Your task to perform on an android device: Go to network settings Image 0: 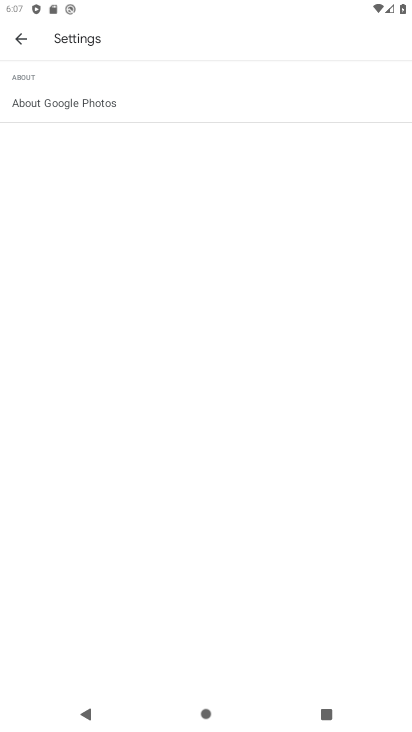
Step 0: press home button
Your task to perform on an android device: Go to network settings Image 1: 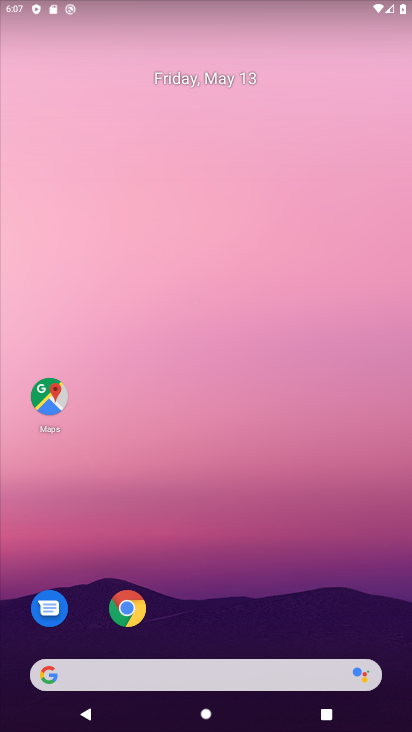
Step 1: drag from (203, 593) to (276, 192)
Your task to perform on an android device: Go to network settings Image 2: 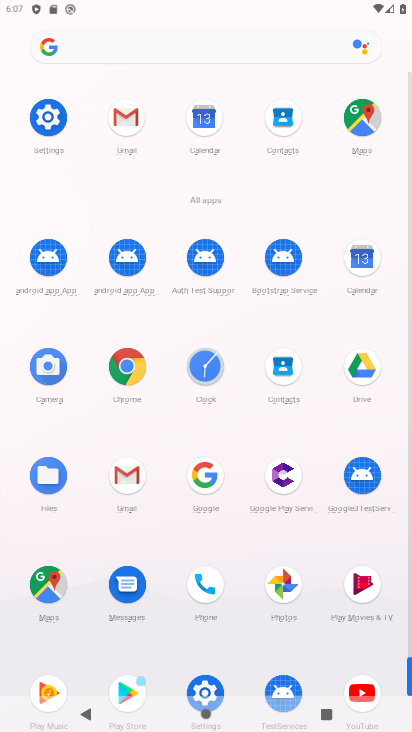
Step 2: click (238, 323)
Your task to perform on an android device: Go to network settings Image 3: 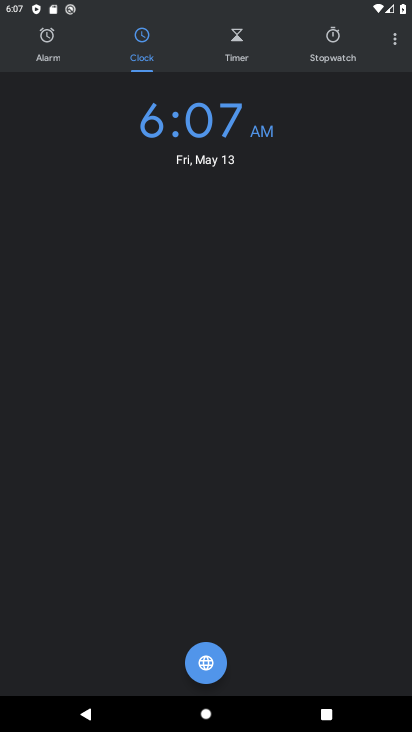
Step 3: press home button
Your task to perform on an android device: Go to network settings Image 4: 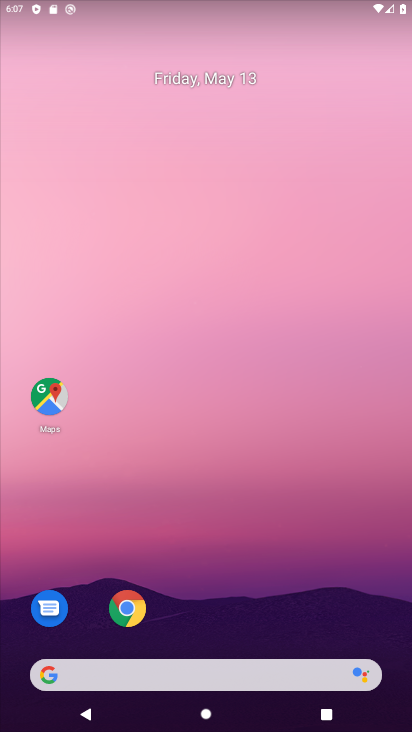
Step 4: drag from (226, 601) to (317, 5)
Your task to perform on an android device: Go to network settings Image 5: 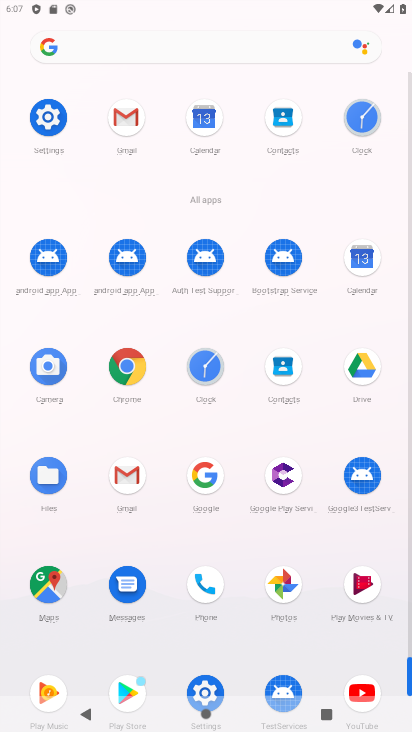
Step 5: click (53, 115)
Your task to perform on an android device: Go to network settings Image 6: 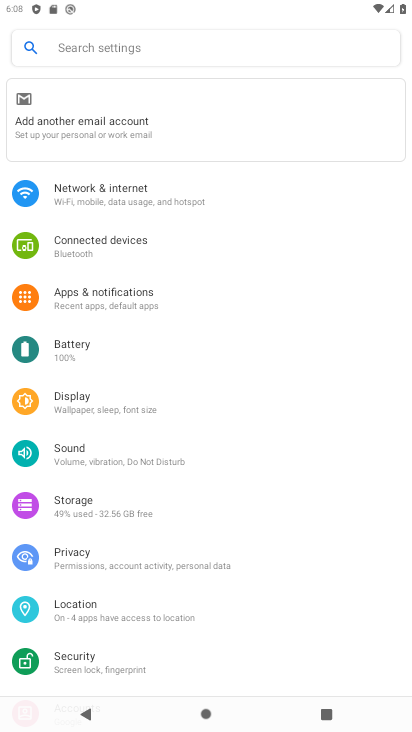
Step 6: click (92, 203)
Your task to perform on an android device: Go to network settings Image 7: 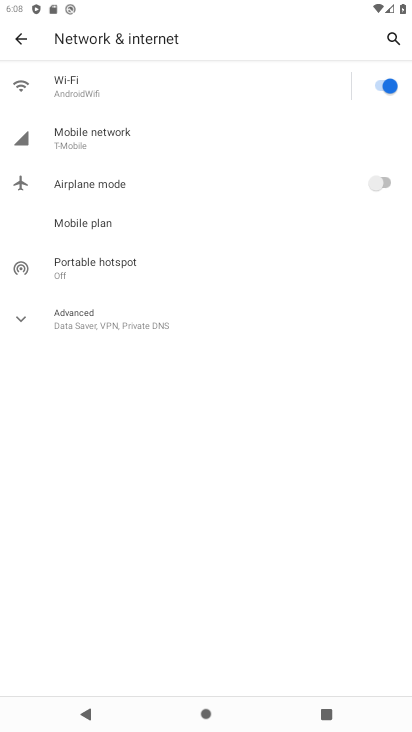
Step 7: task complete